Your task to perform on an android device: What's on my calendar today? Image 0: 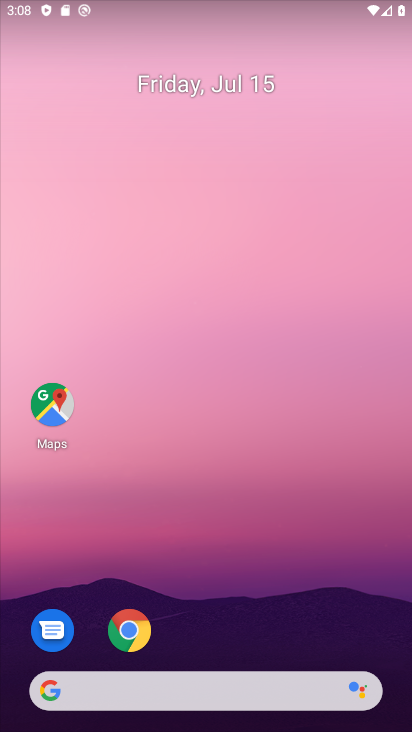
Step 0: drag from (241, 693) to (267, 166)
Your task to perform on an android device: What's on my calendar today? Image 1: 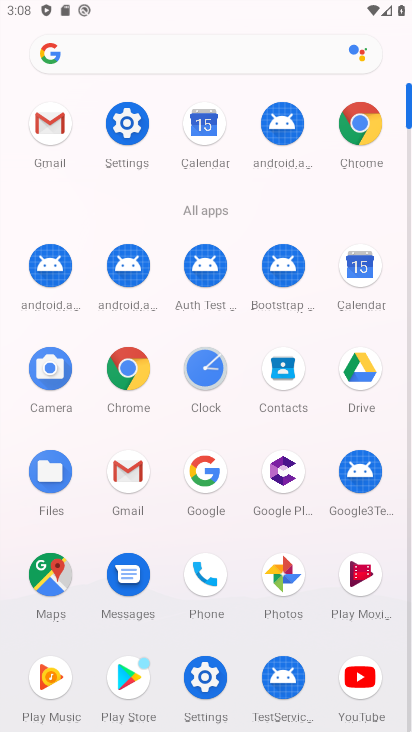
Step 1: click (353, 274)
Your task to perform on an android device: What's on my calendar today? Image 2: 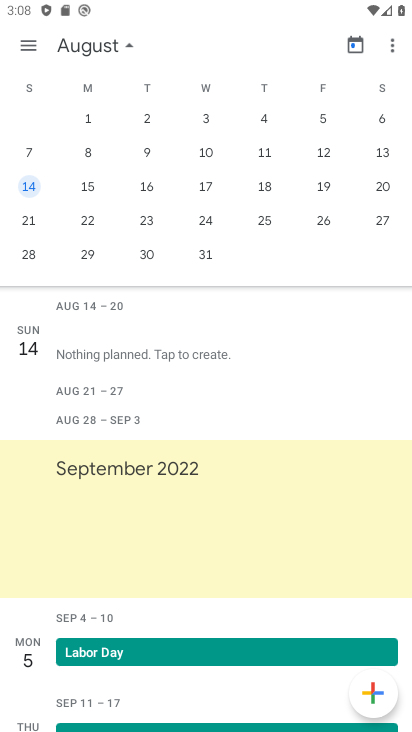
Step 2: drag from (65, 185) to (394, 149)
Your task to perform on an android device: What's on my calendar today? Image 3: 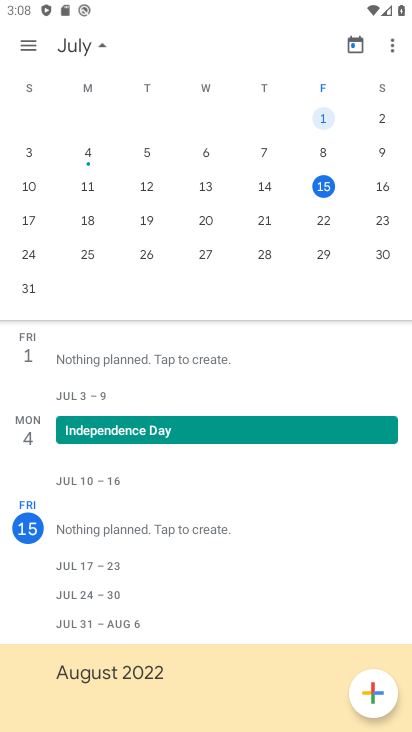
Step 3: click (325, 185)
Your task to perform on an android device: What's on my calendar today? Image 4: 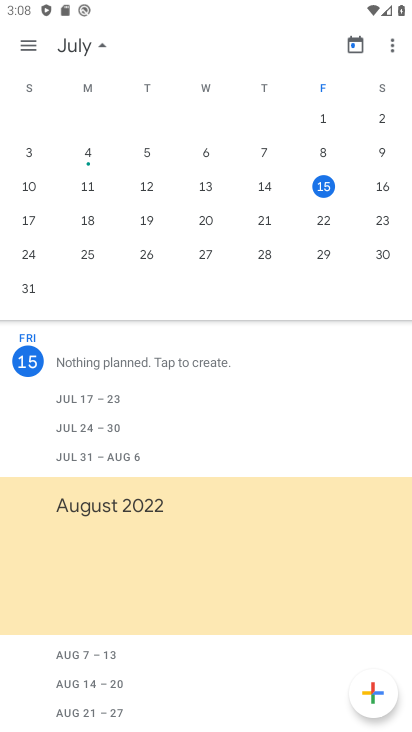
Step 4: task complete